Your task to perform on an android device: Add "razer huntsman" to the cart on walmart, then select checkout. Image 0: 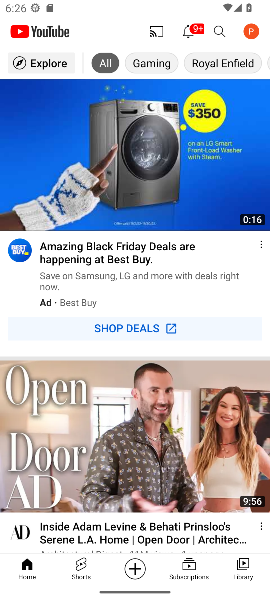
Step 0: press home button
Your task to perform on an android device: Add "razer huntsman" to the cart on walmart, then select checkout. Image 1: 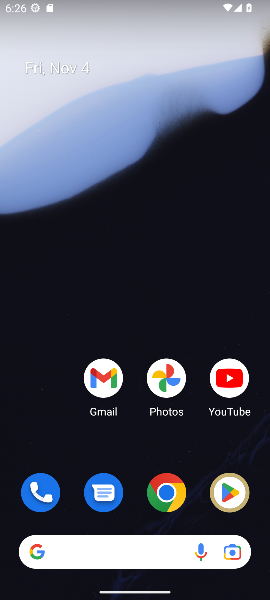
Step 1: drag from (144, 443) to (206, 24)
Your task to perform on an android device: Add "razer huntsman" to the cart on walmart, then select checkout. Image 2: 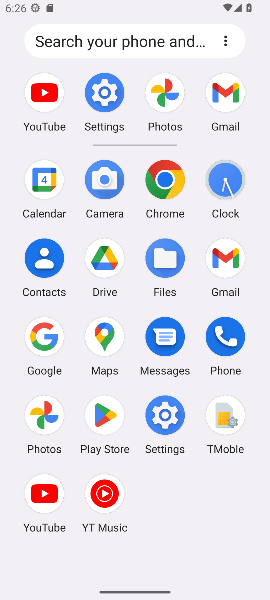
Step 2: click (163, 179)
Your task to perform on an android device: Add "razer huntsman" to the cart on walmart, then select checkout. Image 3: 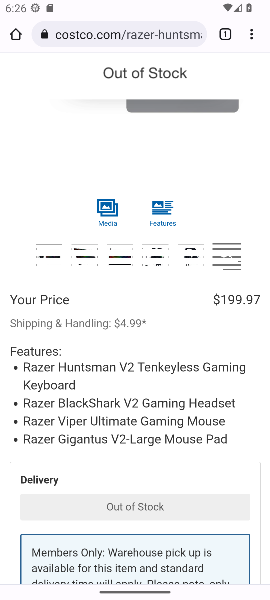
Step 3: click (160, 28)
Your task to perform on an android device: Add "razer huntsman" to the cart on walmart, then select checkout. Image 4: 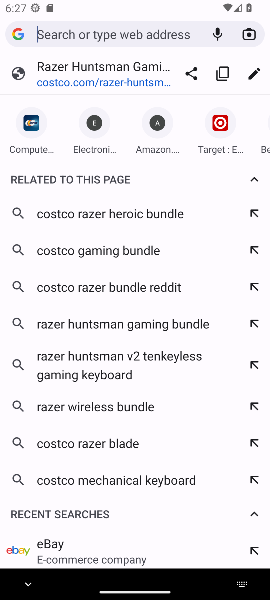
Step 4: type "walmart.com"
Your task to perform on an android device: Add "razer huntsman" to the cart on walmart, then select checkout. Image 5: 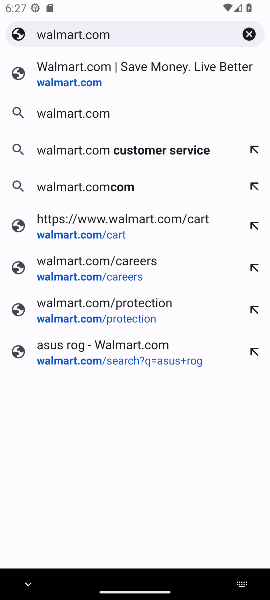
Step 5: press enter
Your task to perform on an android device: Add "razer huntsman" to the cart on walmart, then select checkout. Image 6: 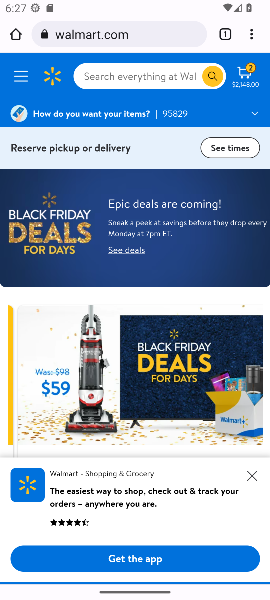
Step 6: click (116, 74)
Your task to perform on an android device: Add "razer huntsman" to the cart on walmart, then select checkout. Image 7: 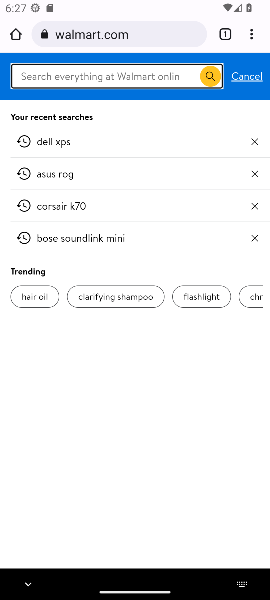
Step 7: type "razer huntsman"
Your task to perform on an android device: Add "razer huntsman" to the cart on walmart, then select checkout. Image 8: 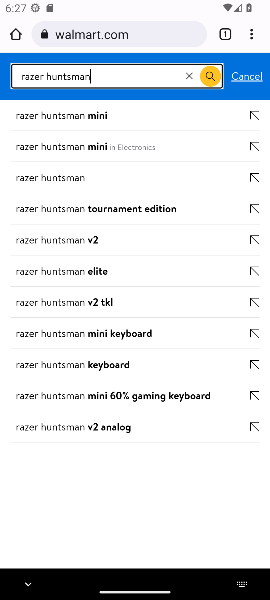
Step 8: press enter
Your task to perform on an android device: Add "razer huntsman" to the cart on walmart, then select checkout. Image 9: 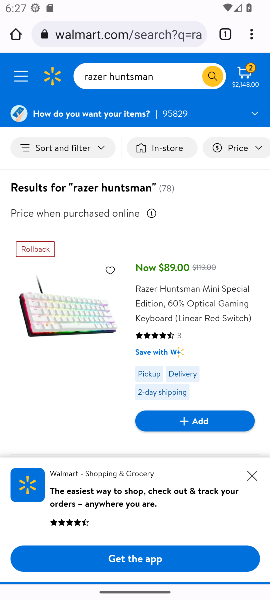
Step 9: click (219, 425)
Your task to perform on an android device: Add "razer huntsman" to the cart on walmart, then select checkout. Image 10: 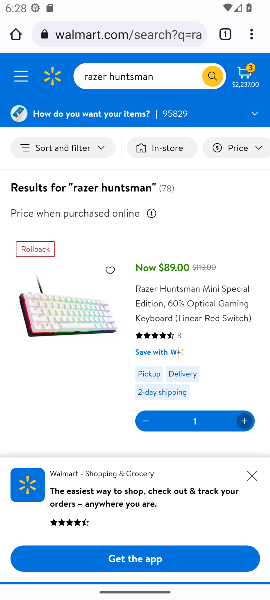
Step 10: click (246, 68)
Your task to perform on an android device: Add "razer huntsman" to the cart on walmart, then select checkout. Image 11: 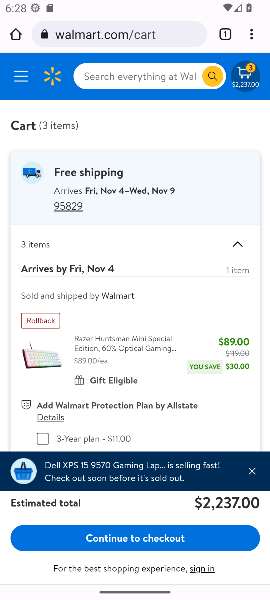
Step 11: click (175, 534)
Your task to perform on an android device: Add "razer huntsman" to the cart on walmart, then select checkout. Image 12: 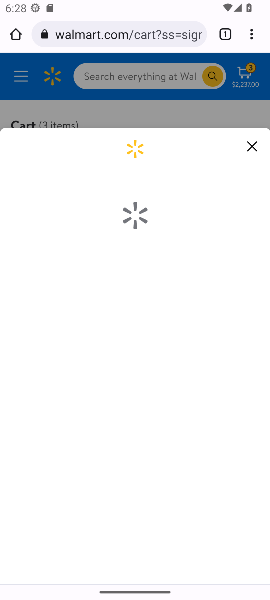
Step 12: task complete